Your task to perform on an android device: create a new album in the google photos Image 0: 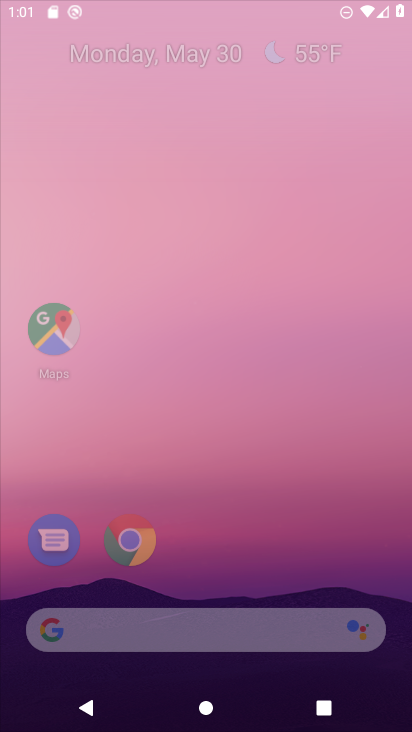
Step 0: press home button
Your task to perform on an android device: create a new album in the google photos Image 1: 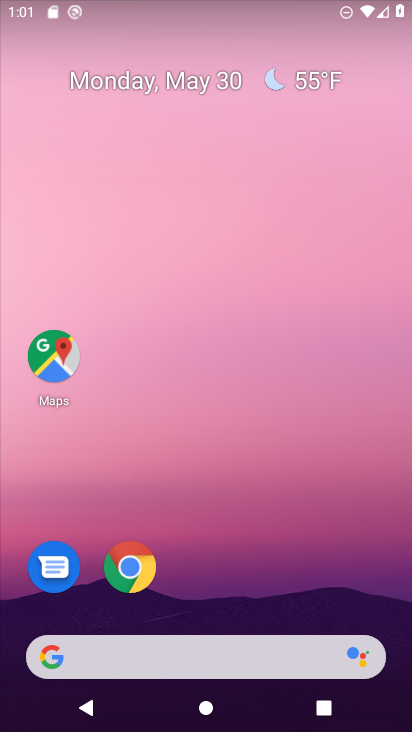
Step 1: drag from (231, 617) to (238, 175)
Your task to perform on an android device: create a new album in the google photos Image 2: 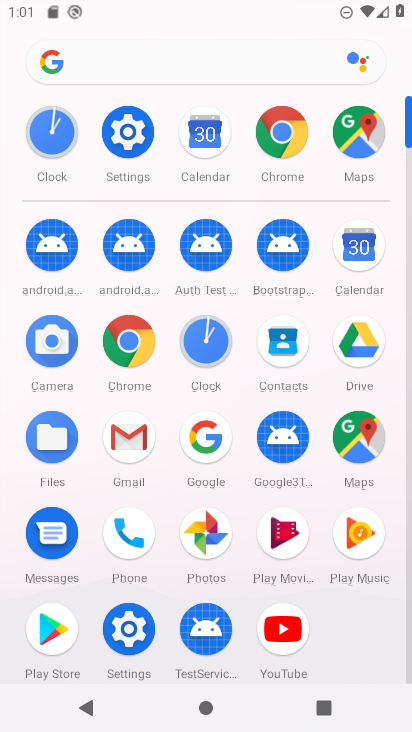
Step 2: click (199, 523)
Your task to perform on an android device: create a new album in the google photos Image 3: 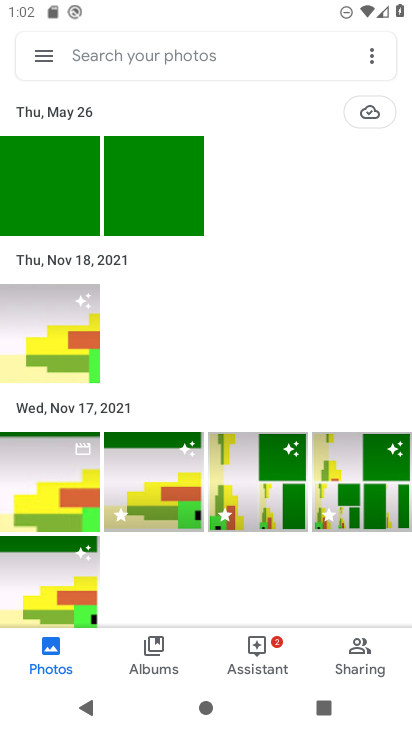
Step 3: click (369, 58)
Your task to perform on an android device: create a new album in the google photos Image 4: 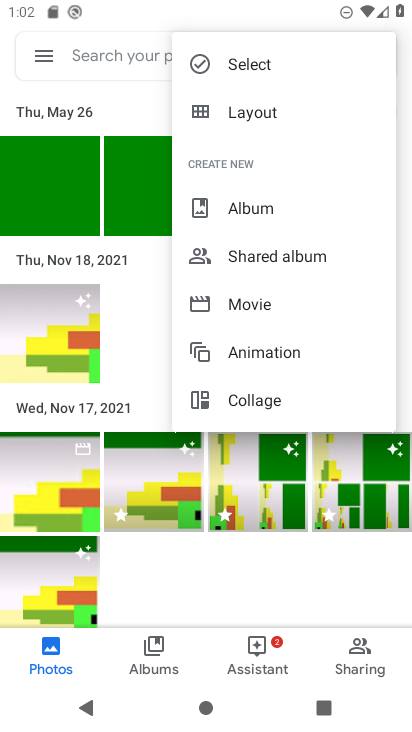
Step 4: click (252, 206)
Your task to perform on an android device: create a new album in the google photos Image 5: 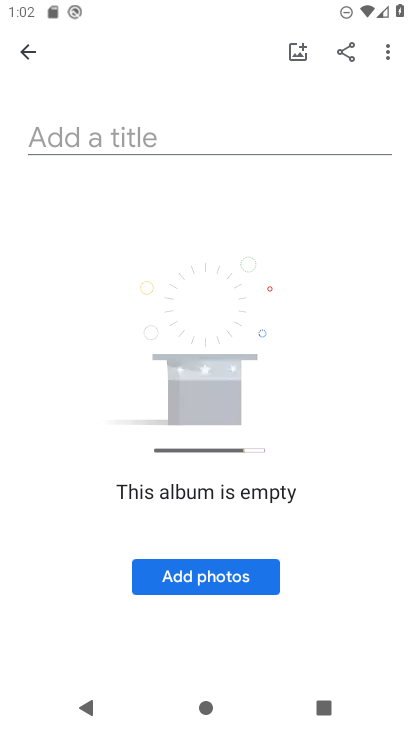
Step 5: click (210, 576)
Your task to perform on an android device: create a new album in the google photos Image 6: 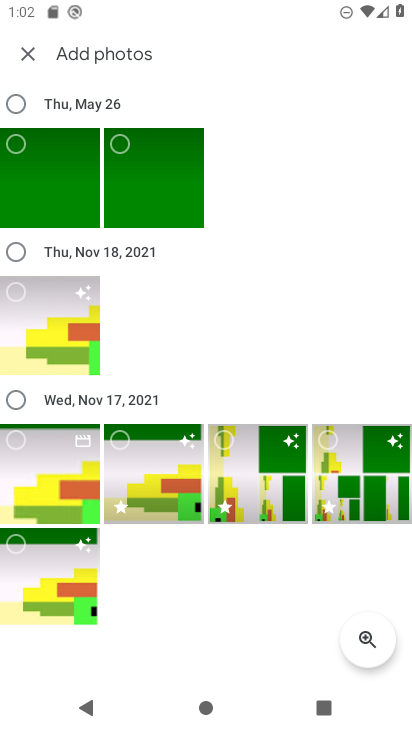
Step 6: click (22, 182)
Your task to perform on an android device: create a new album in the google photos Image 7: 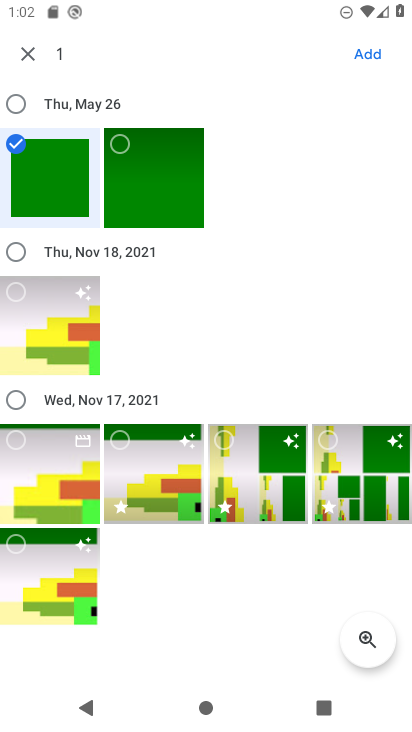
Step 7: click (54, 318)
Your task to perform on an android device: create a new album in the google photos Image 8: 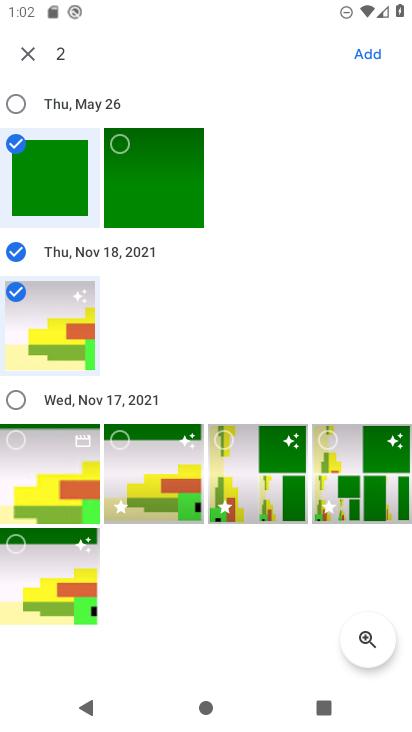
Step 8: click (58, 472)
Your task to perform on an android device: create a new album in the google photos Image 9: 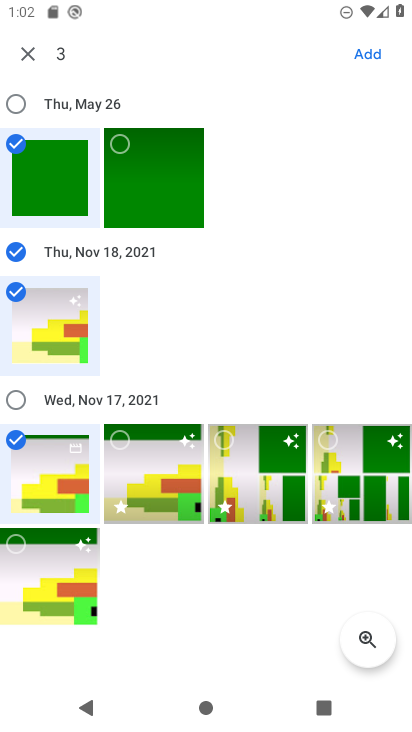
Step 9: click (61, 609)
Your task to perform on an android device: create a new album in the google photos Image 10: 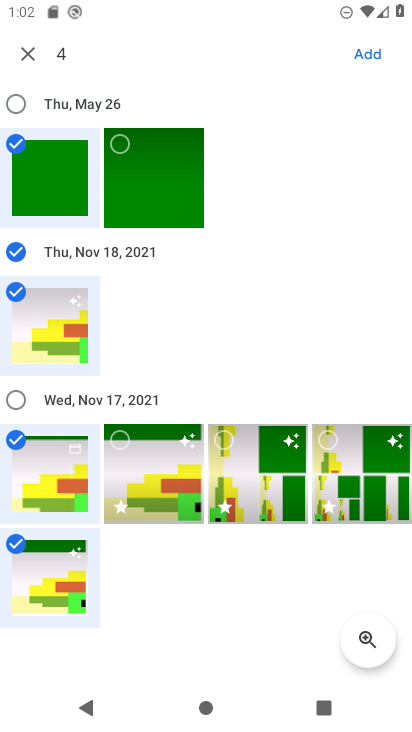
Step 10: click (372, 45)
Your task to perform on an android device: create a new album in the google photos Image 11: 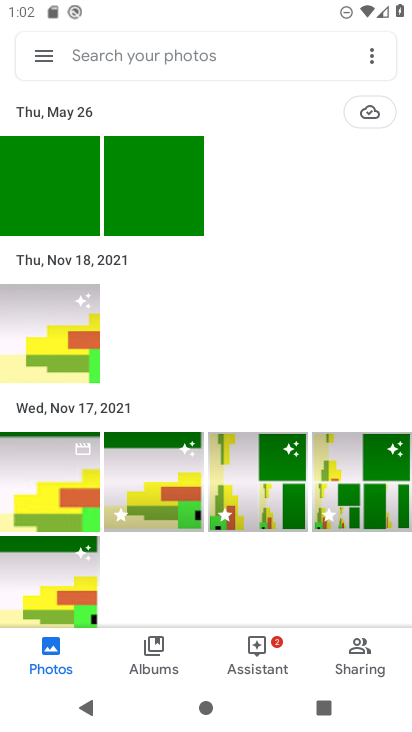
Step 11: click (363, 46)
Your task to perform on an android device: create a new album in the google photos Image 12: 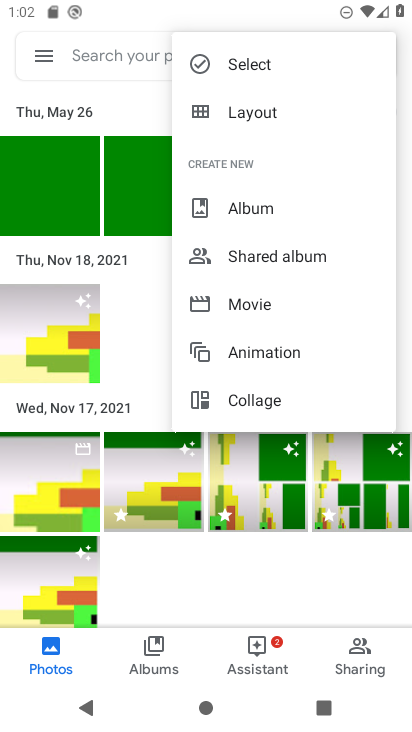
Step 12: click (282, 205)
Your task to perform on an android device: create a new album in the google photos Image 13: 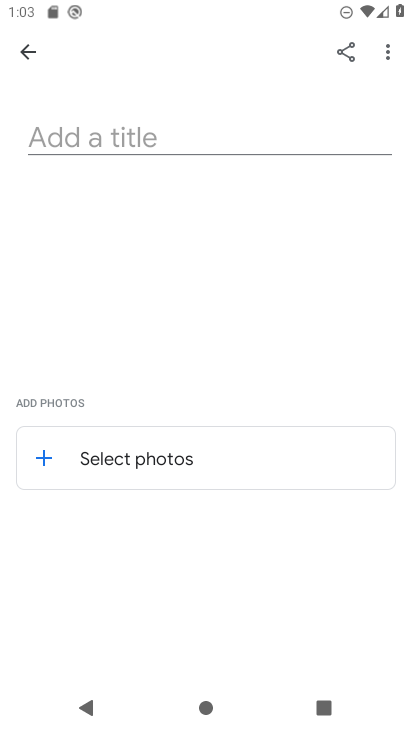
Step 13: click (109, 467)
Your task to perform on an android device: create a new album in the google photos Image 14: 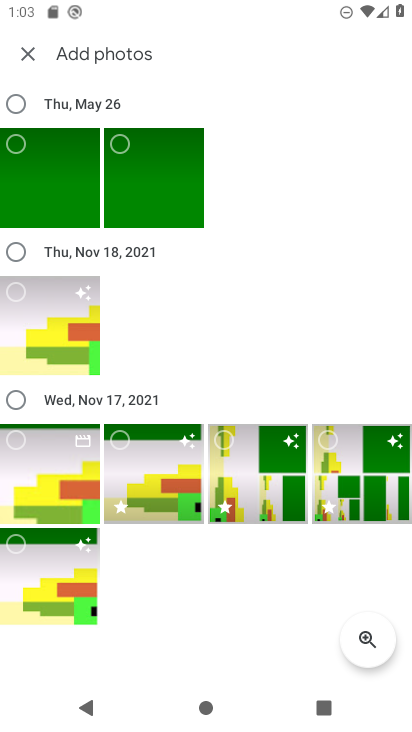
Step 14: click (38, 315)
Your task to perform on an android device: create a new album in the google photos Image 15: 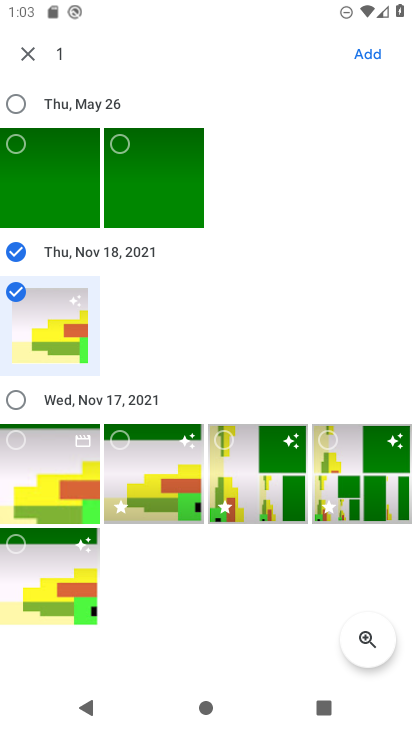
Step 15: click (41, 159)
Your task to perform on an android device: create a new album in the google photos Image 16: 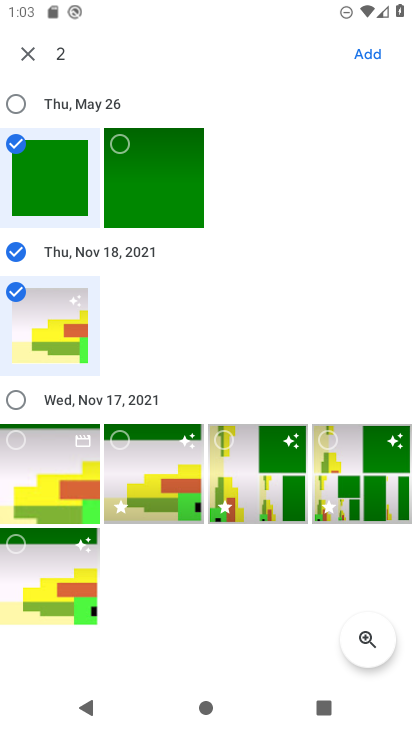
Step 16: click (45, 451)
Your task to perform on an android device: create a new album in the google photos Image 17: 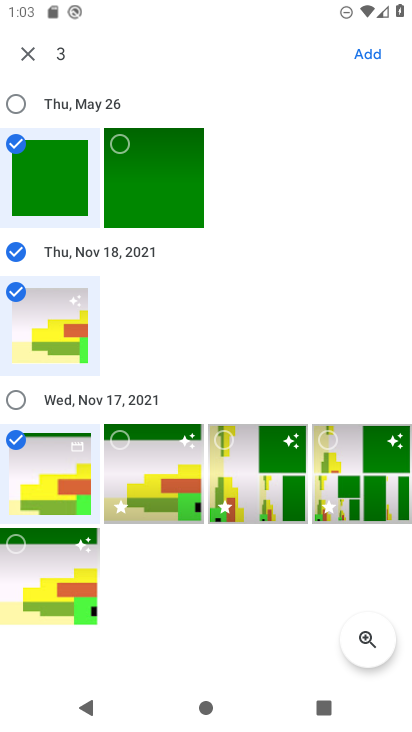
Step 17: click (40, 582)
Your task to perform on an android device: create a new album in the google photos Image 18: 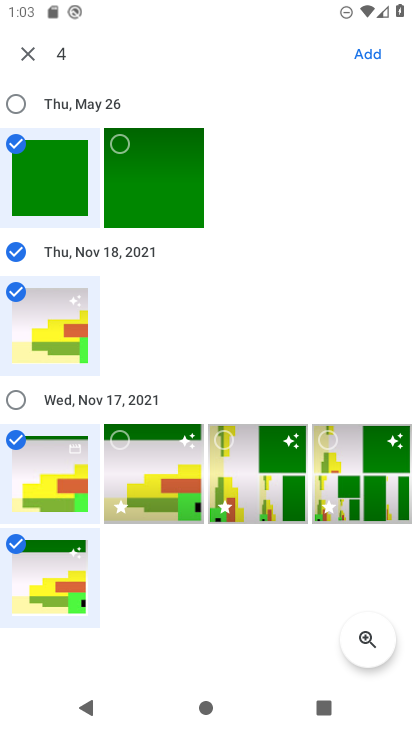
Step 18: click (351, 49)
Your task to perform on an android device: create a new album in the google photos Image 19: 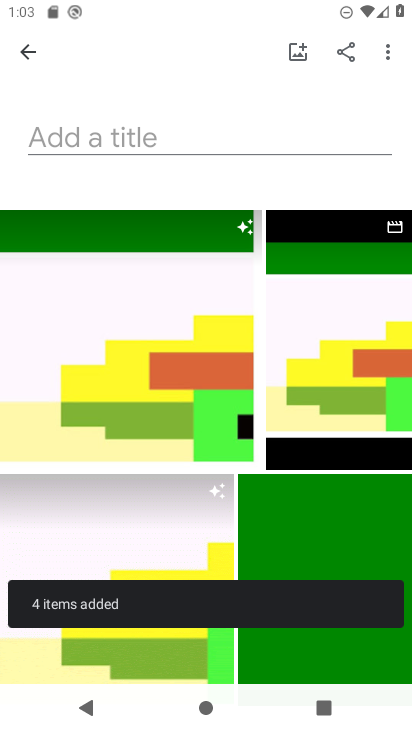
Step 19: click (208, 133)
Your task to perform on an android device: create a new album in the google photos Image 20: 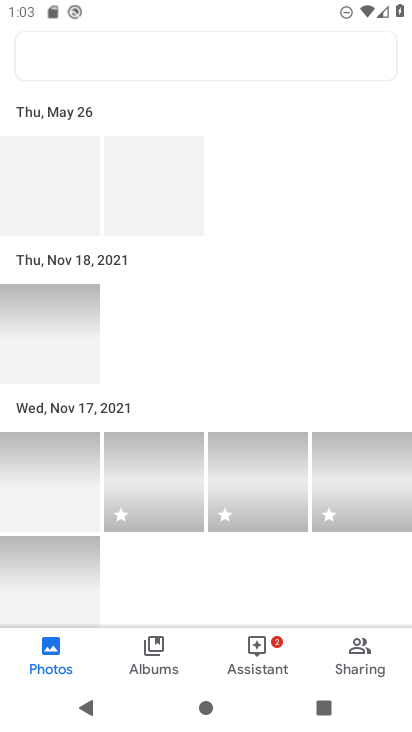
Step 20: task complete